Your task to perform on an android device: turn on showing notifications on the lock screen Image 0: 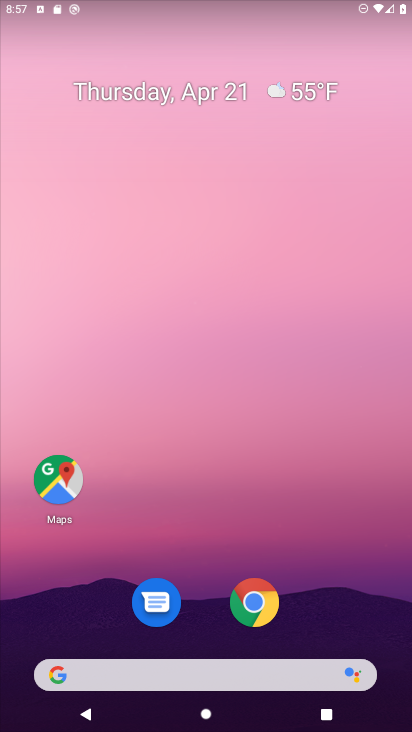
Step 0: drag from (207, 641) to (195, 231)
Your task to perform on an android device: turn on showing notifications on the lock screen Image 1: 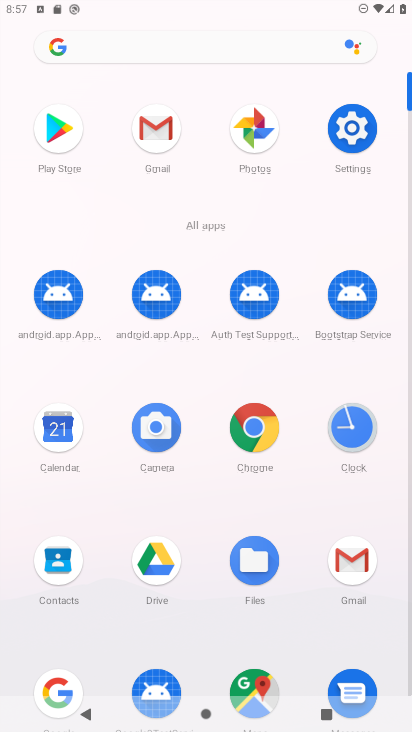
Step 1: click (344, 138)
Your task to perform on an android device: turn on showing notifications on the lock screen Image 2: 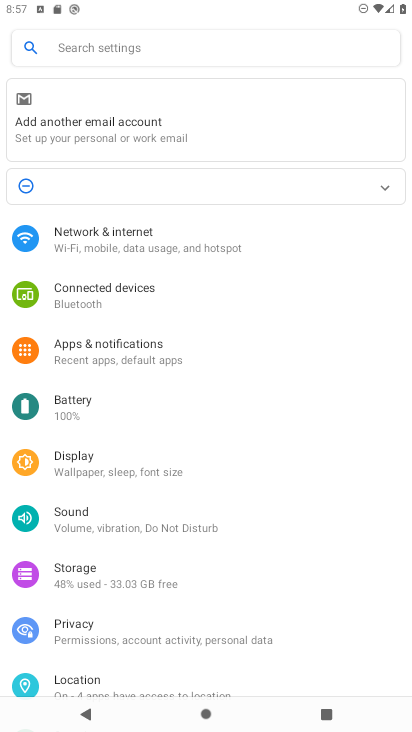
Step 2: click (344, 138)
Your task to perform on an android device: turn on showing notifications on the lock screen Image 3: 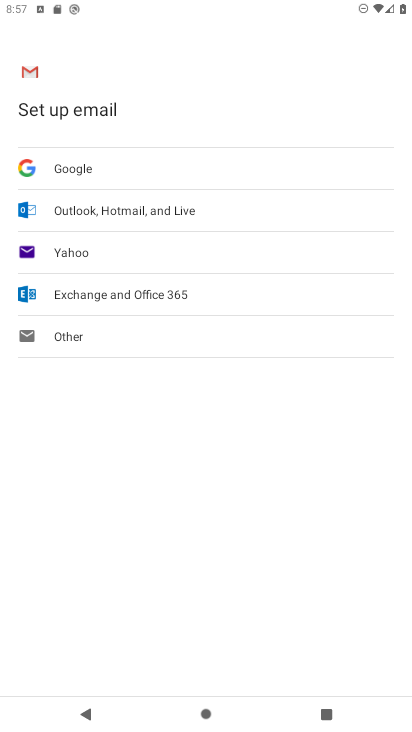
Step 3: click (127, 274)
Your task to perform on an android device: turn on showing notifications on the lock screen Image 4: 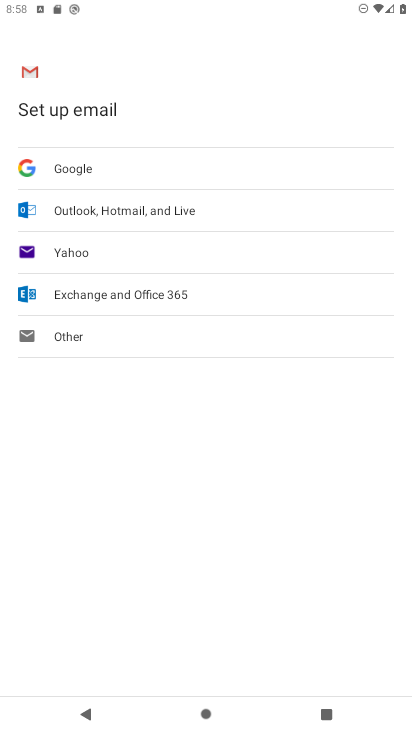
Step 4: press home button
Your task to perform on an android device: turn on showing notifications on the lock screen Image 5: 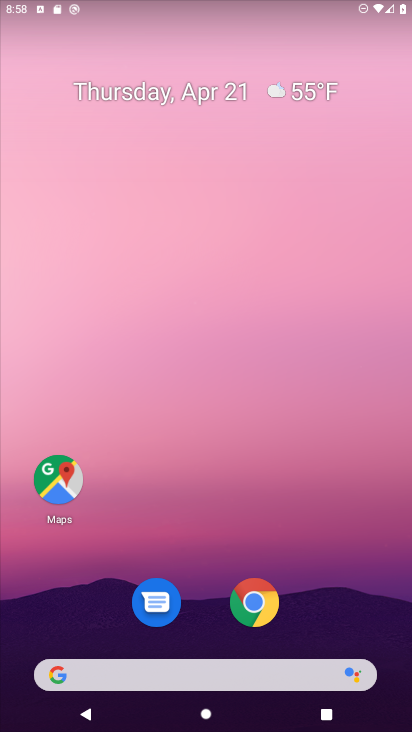
Step 5: drag from (341, 562) to (338, 13)
Your task to perform on an android device: turn on showing notifications on the lock screen Image 6: 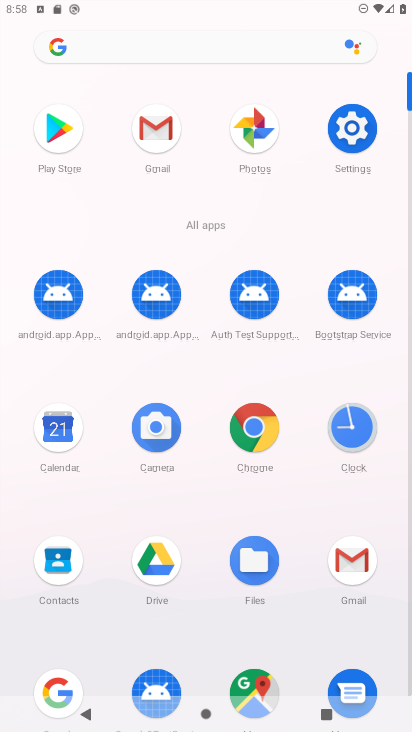
Step 6: click (332, 136)
Your task to perform on an android device: turn on showing notifications on the lock screen Image 7: 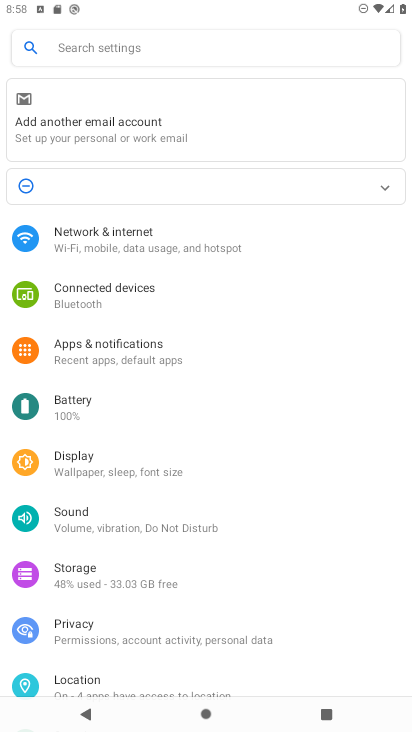
Step 7: click (194, 350)
Your task to perform on an android device: turn on showing notifications on the lock screen Image 8: 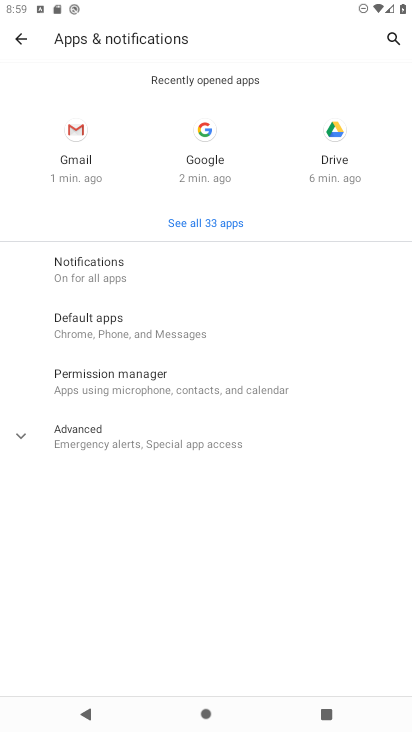
Step 8: click (156, 271)
Your task to perform on an android device: turn on showing notifications on the lock screen Image 9: 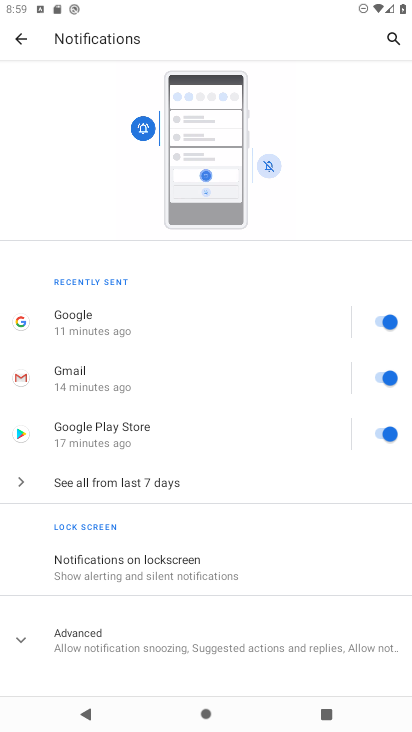
Step 9: click (164, 581)
Your task to perform on an android device: turn on showing notifications on the lock screen Image 10: 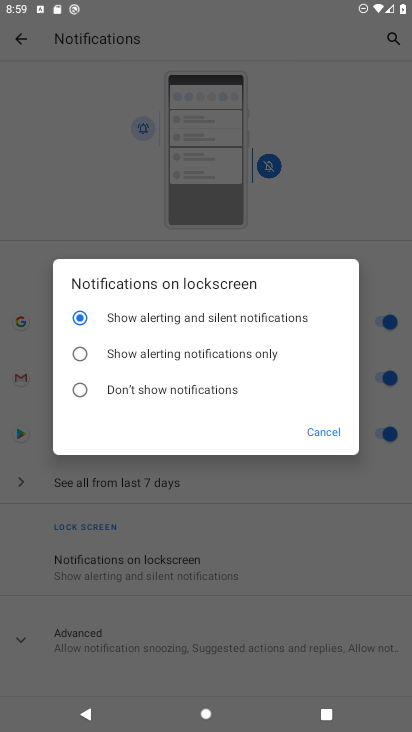
Step 10: task complete